Your task to perform on an android device: Go to notification settings Image 0: 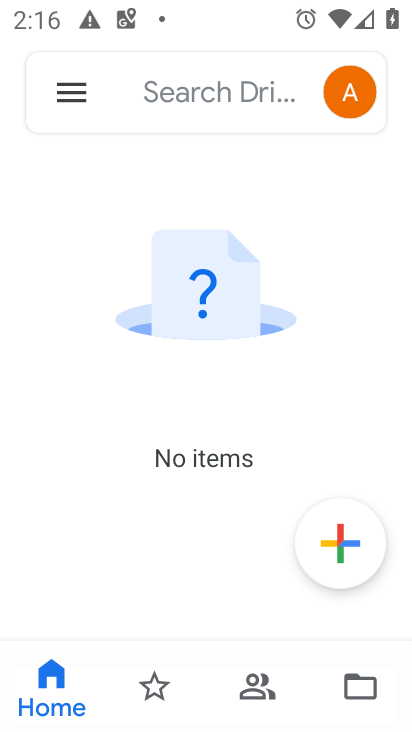
Step 0: press home button
Your task to perform on an android device: Go to notification settings Image 1: 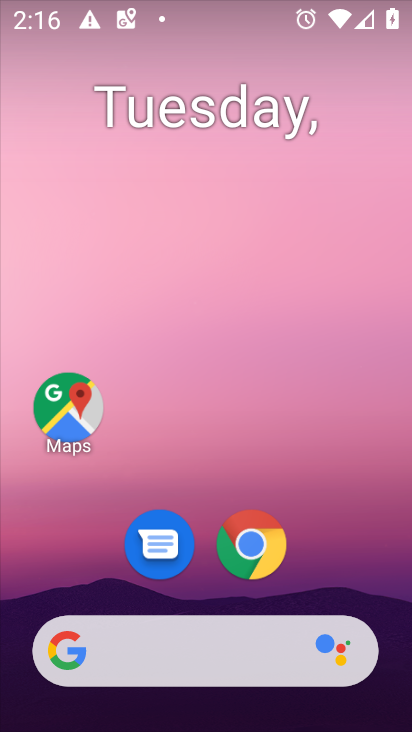
Step 1: drag from (330, 486) to (115, 2)
Your task to perform on an android device: Go to notification settings Image 2: 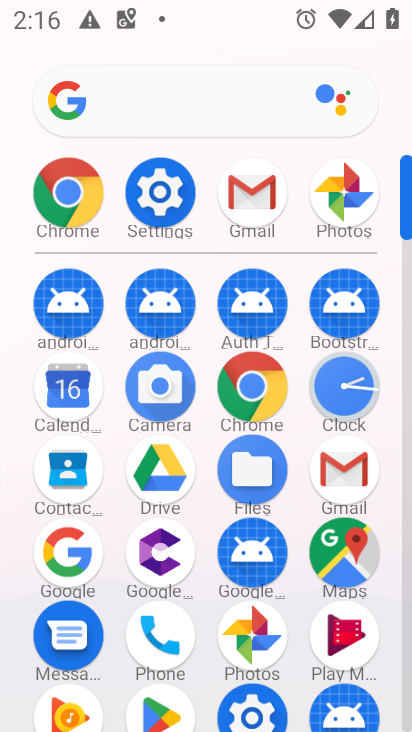
Step 2: click (156, 205)
Your task to perform on an android device: Go to notification settings Image 3: 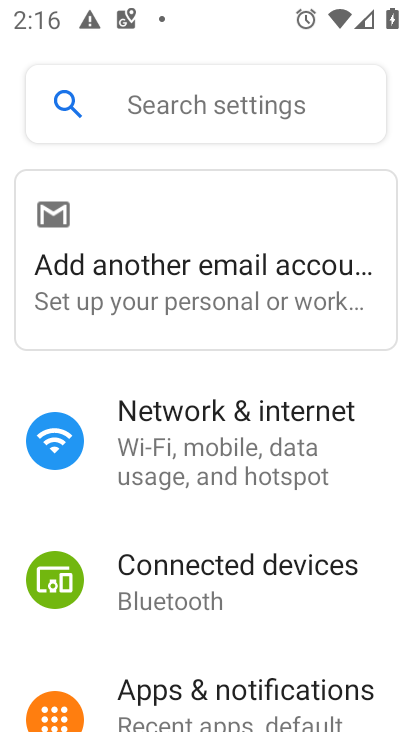
Step 3: click (243, 691)
Your task to perform on an android device: Go to notification settings Image 4: 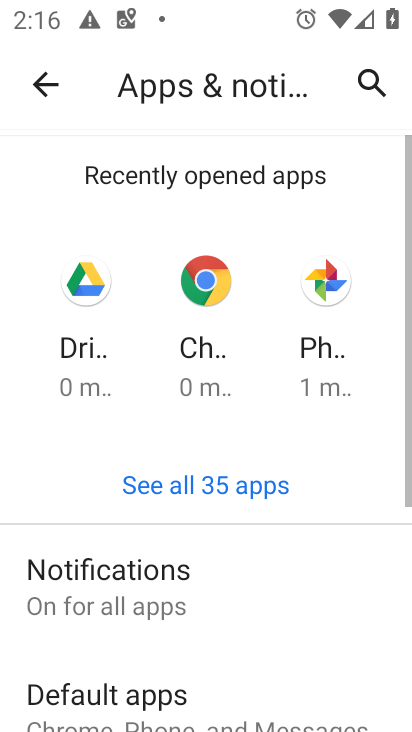
Step 4: click (160, 558)
Your task to perform on an android device: Go to notification settings Image 5: 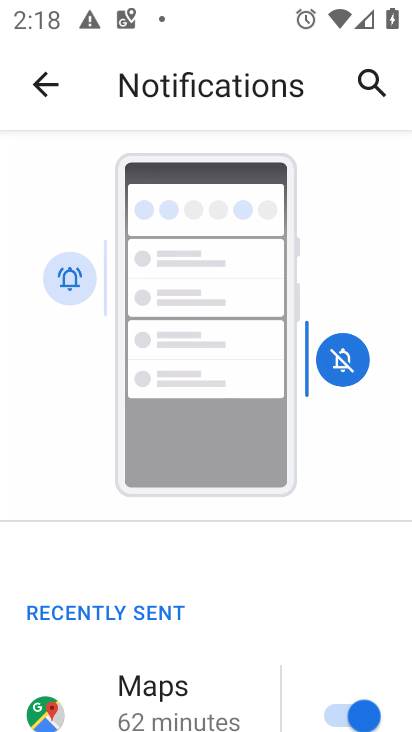
Step 5: task complete